Your task to perform on an android device: set the stopwatch Image 0: 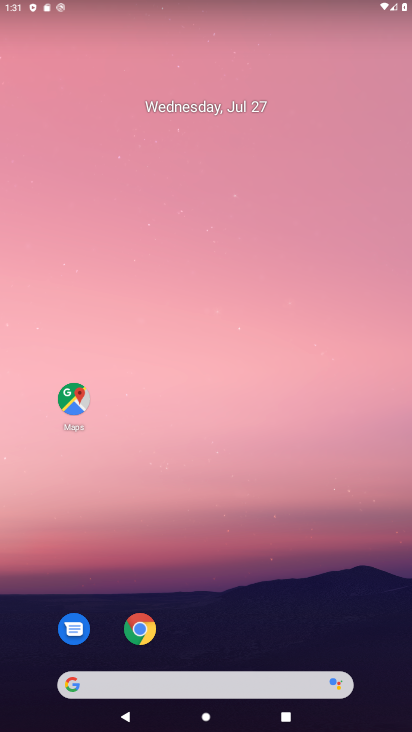
Step 0: press home button
Your task to perform on an android device: set the stopwatch Image 1: 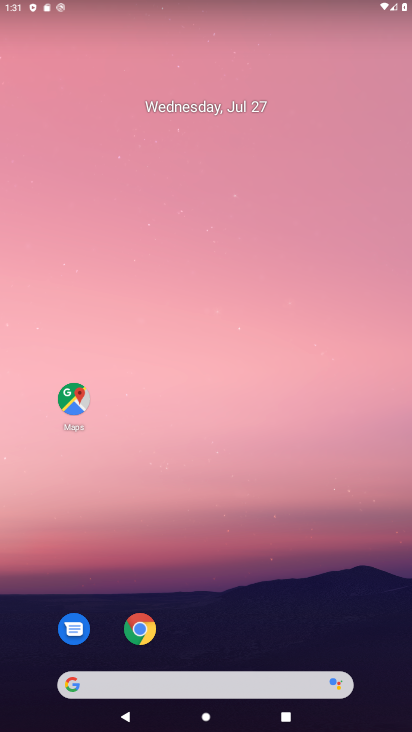
Step 1: drag from (236, 641) to (311, 211)
Your task to perform on an android device: set the stopwatch Image 2: 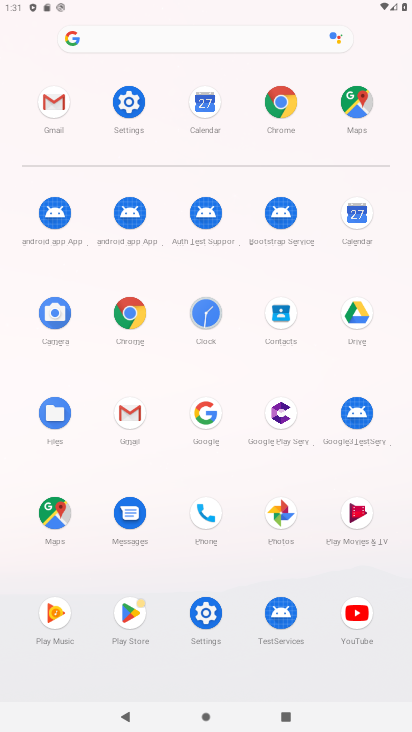
Step 2: click (208, 325)
Your task to perform on an android device: set the stopwatch Image 3: 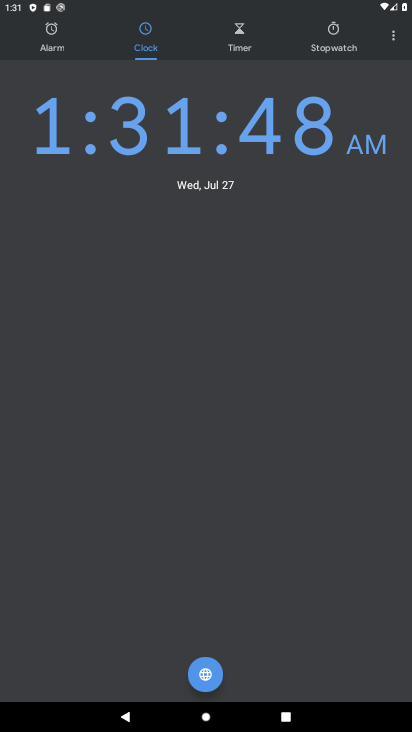
Step 3: click (341, 33)
Your task to perform on an android device: set the stopwatch Image 4: 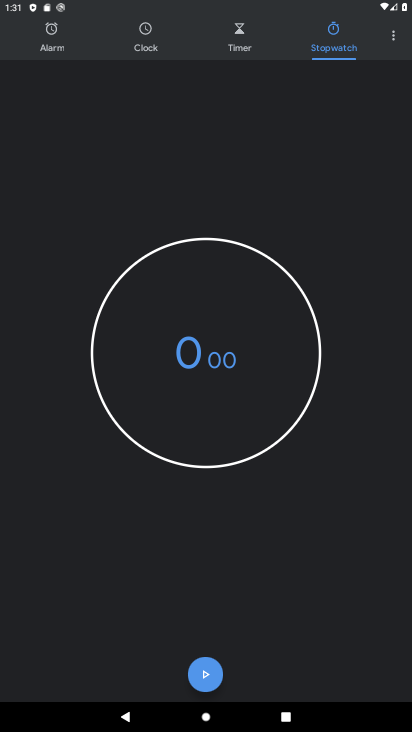
Step 4: click (210, 679)
Your task to perform on an android device: set the stopwatch Image 5: 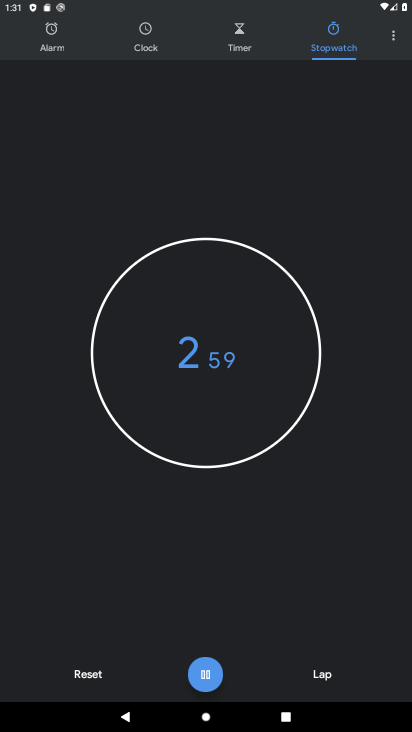
Step 5: task complete